Your task to perform on an android device: Add asus zenbook to the cart on target.com Image 0: 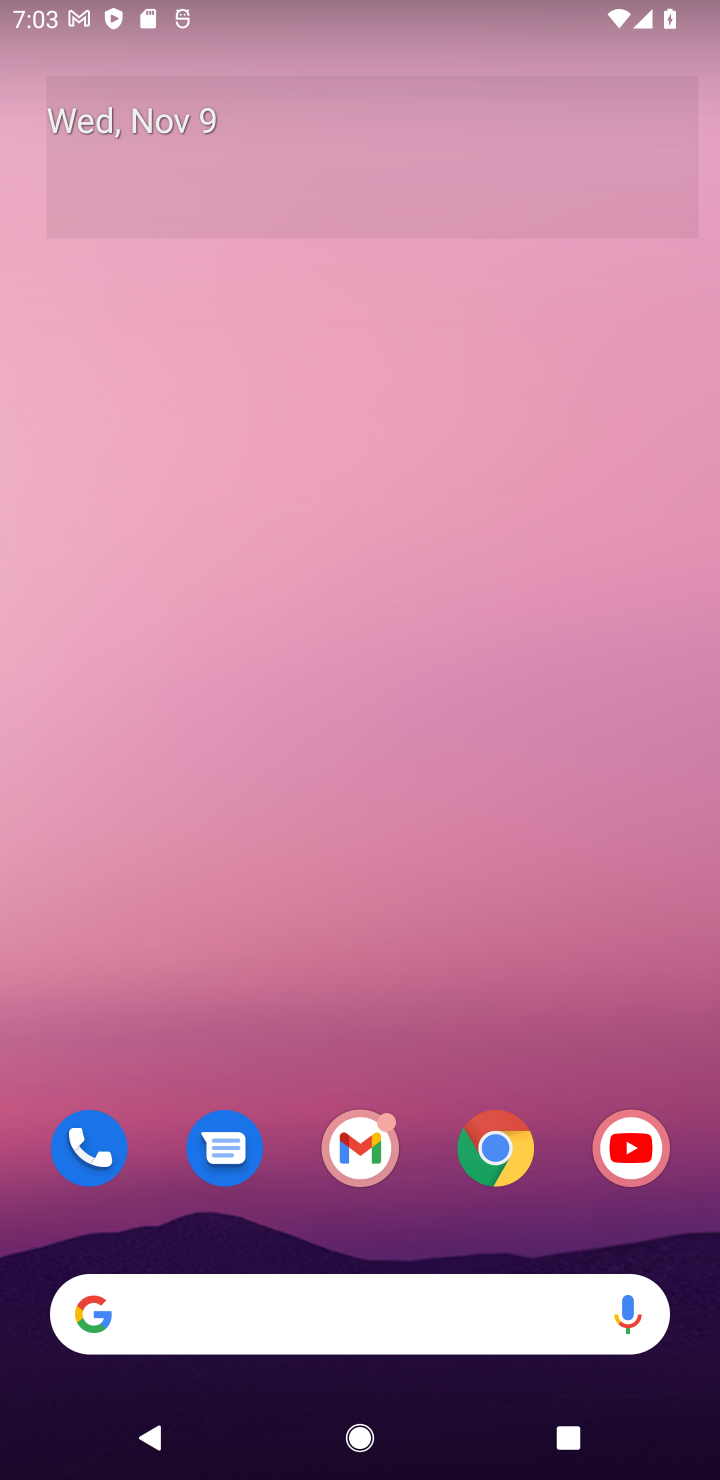
Step 0: click (513, 1156)
Your task to perform on an android device: Add asus zenbook to the cart on target.com Image 1: 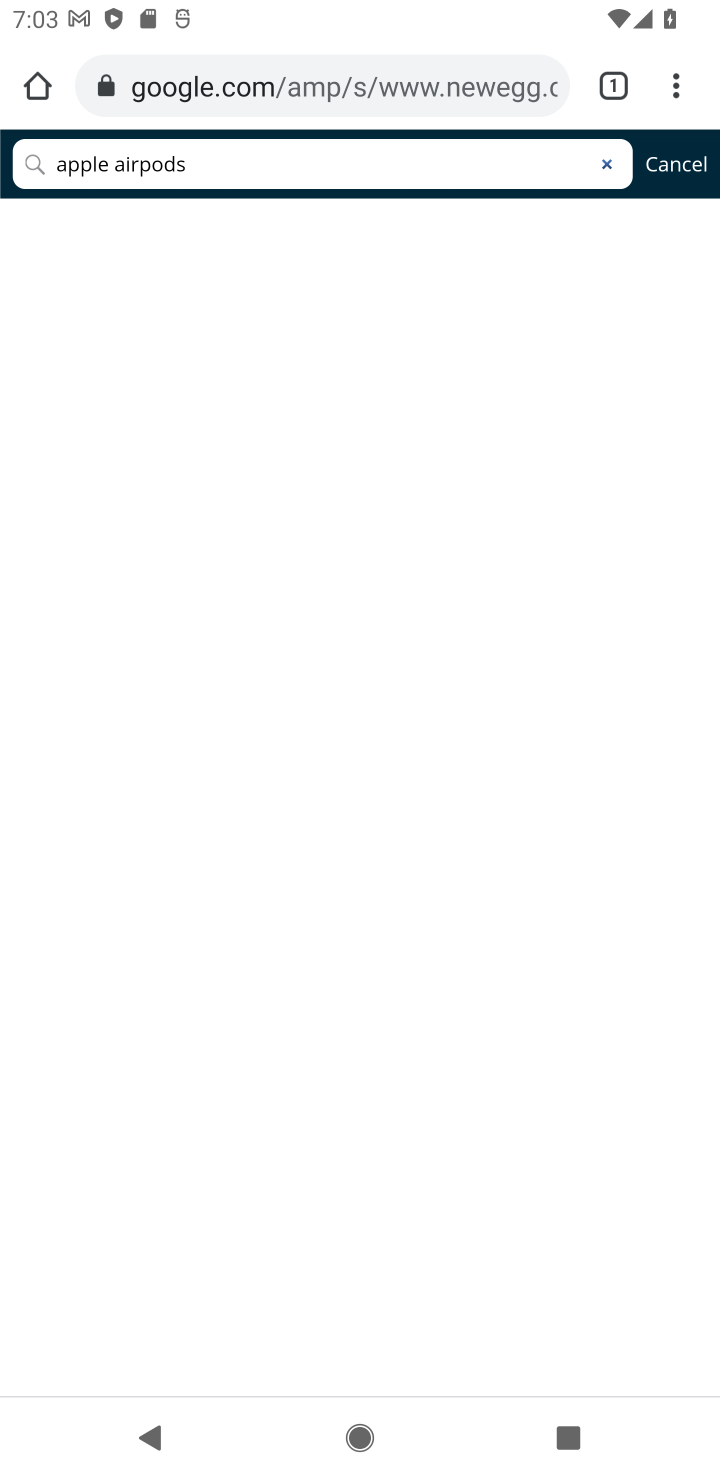
Step 1: click (211, 92)
Your task to perform on an android device: Add asus zenbook to the cart on target.com Image 2: 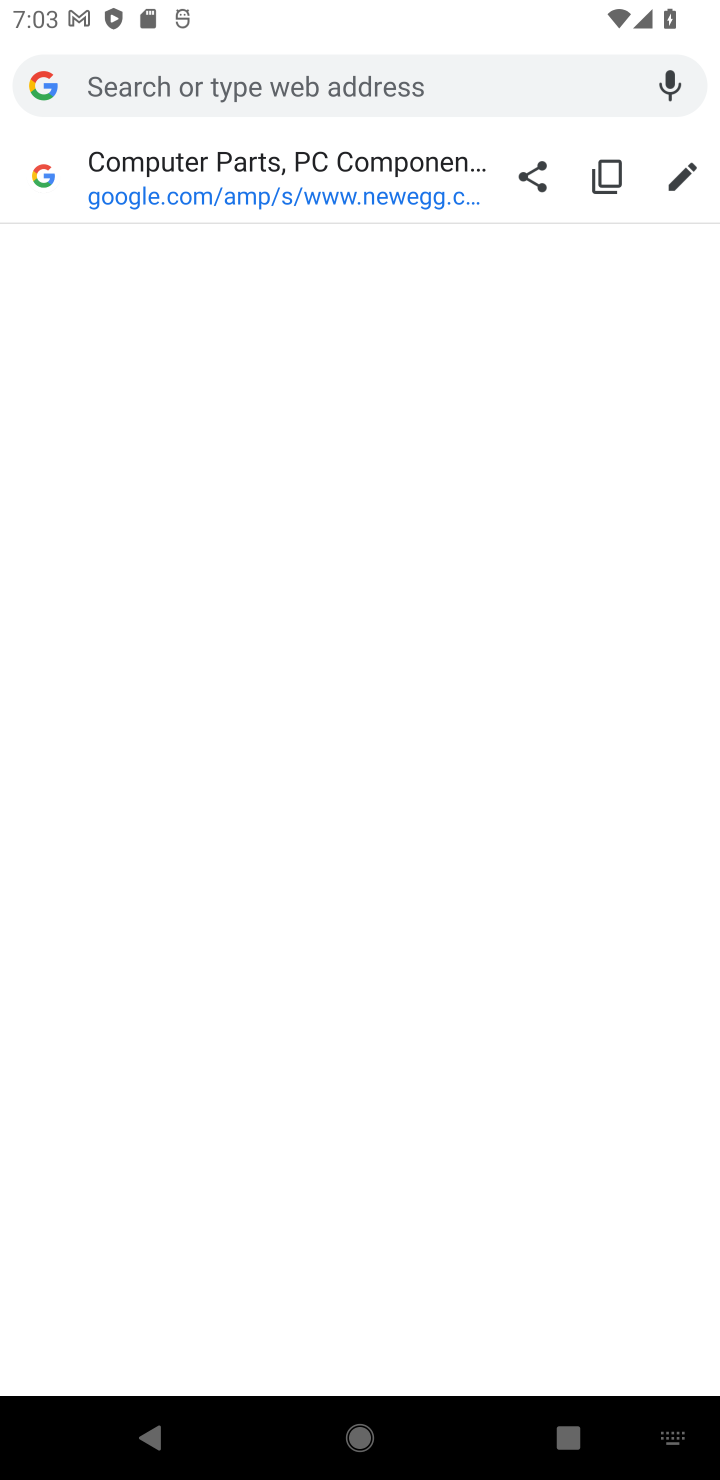
Step 2: type "target"
Your task to perform on an android device: Add asus zenbook to the cart on target.com Image 3: 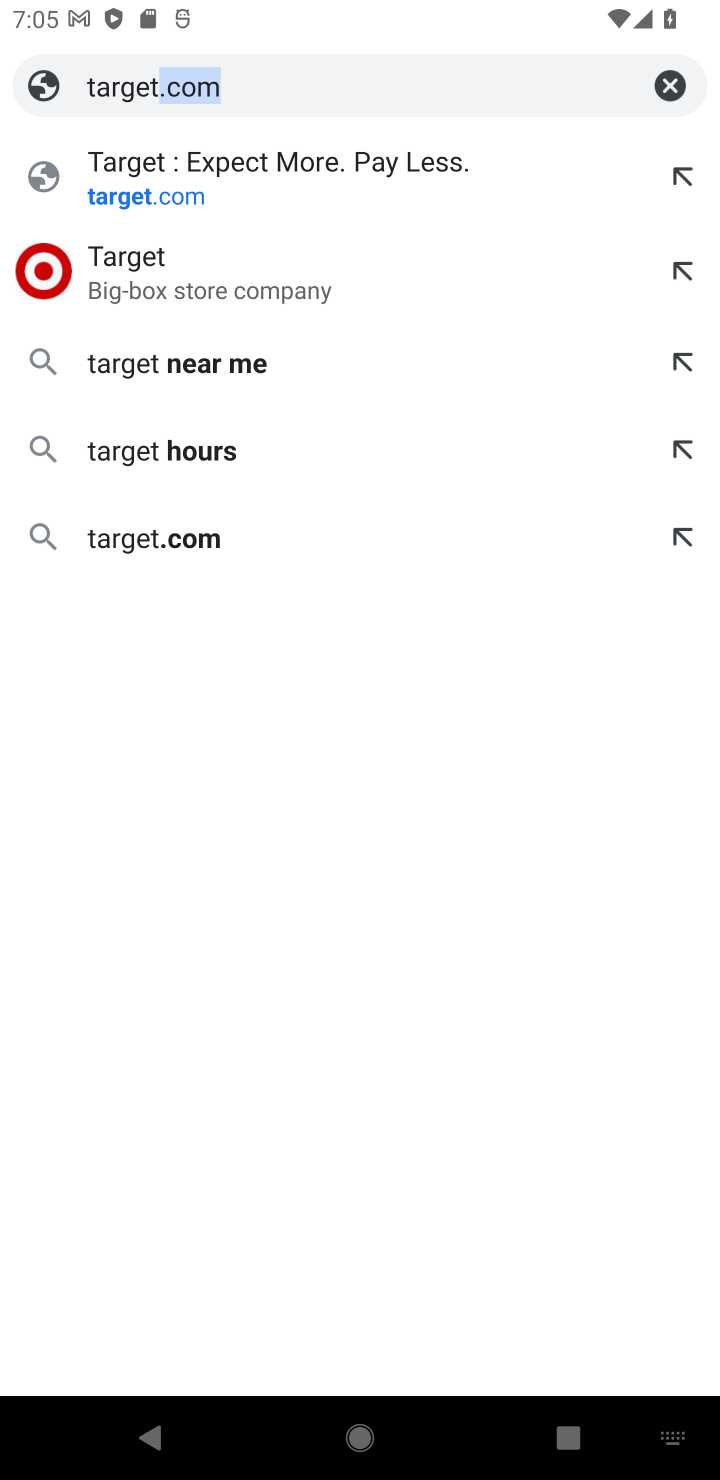
Step 3: click (96, 251)
Your task to perform on an android device: Add asus zenbook to the cart on target.com Image 4: 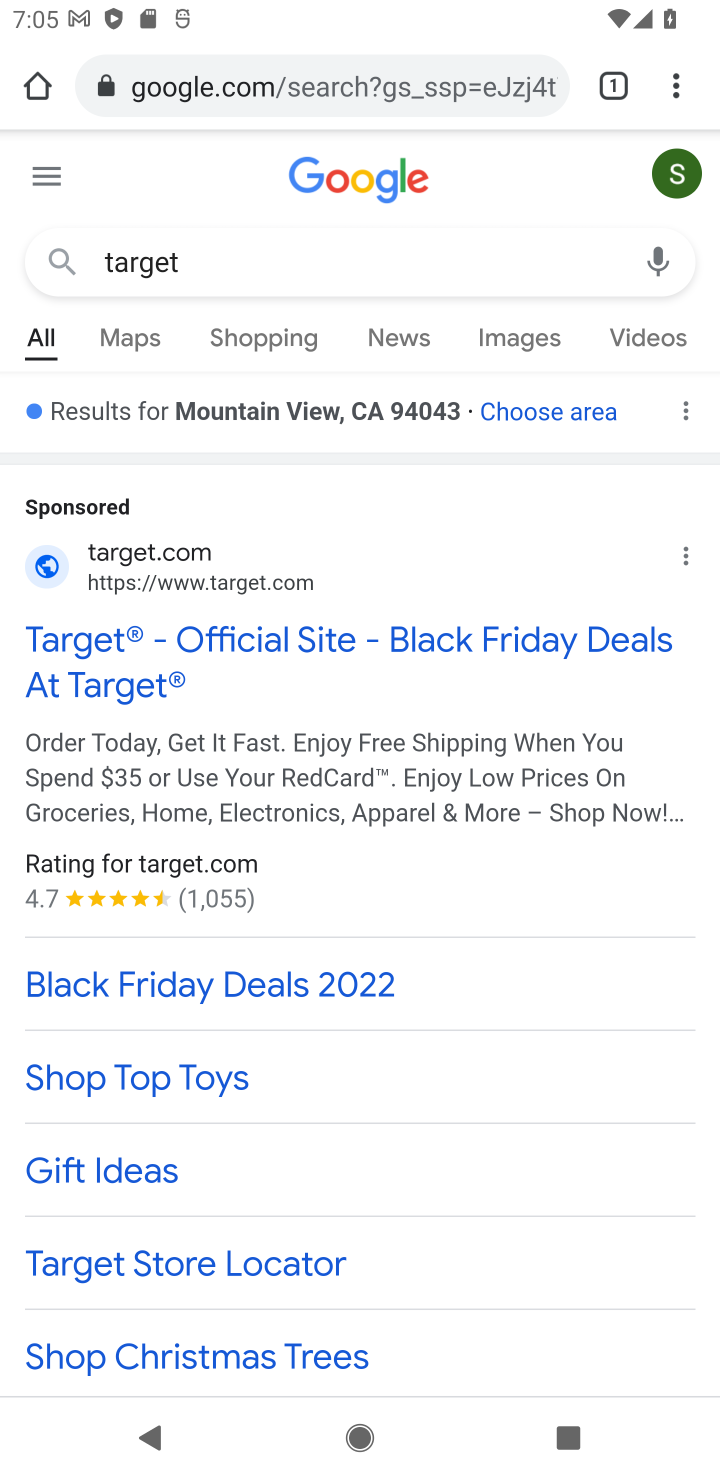
Step 4: drag from (317, 1163) to (302, 593)
Your task to perform on an android device: Add asus zenbook to the cart on target.com Image 5: 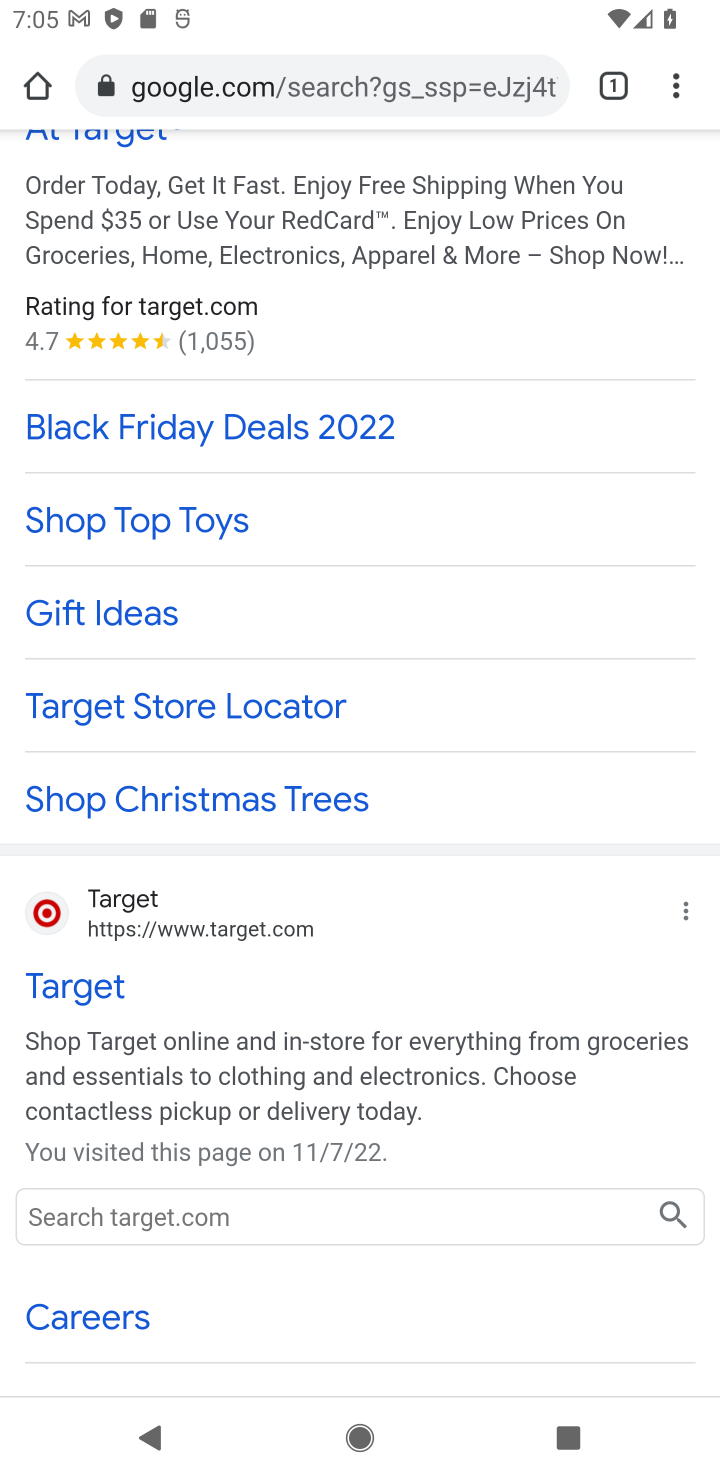
Step 5: click (93, 997)
Your task to perform on an android device: Add asus zenbook to the cart on target.com Image 6: 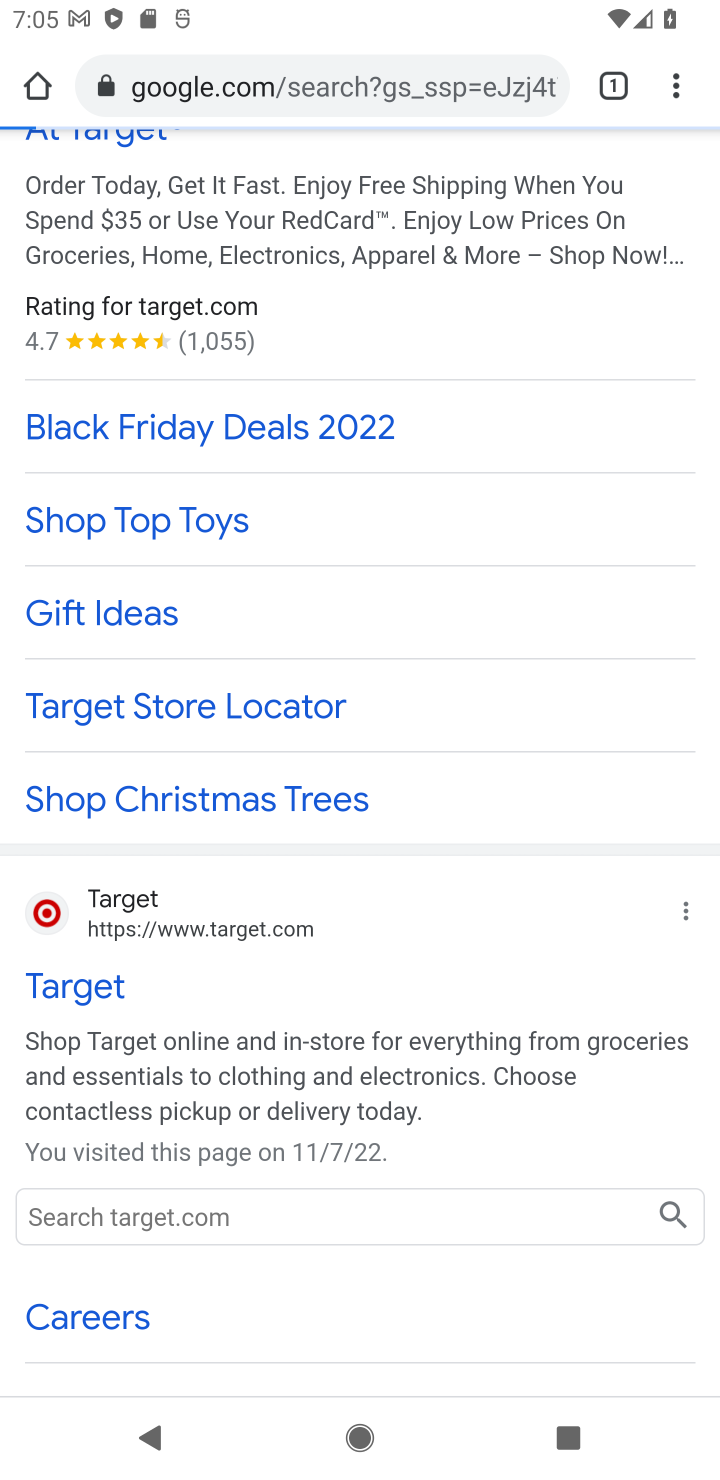
Step 6: click (83, 987)
Your task to perform on an android device: Add asus zenbook to the cart on target.com Image 7: 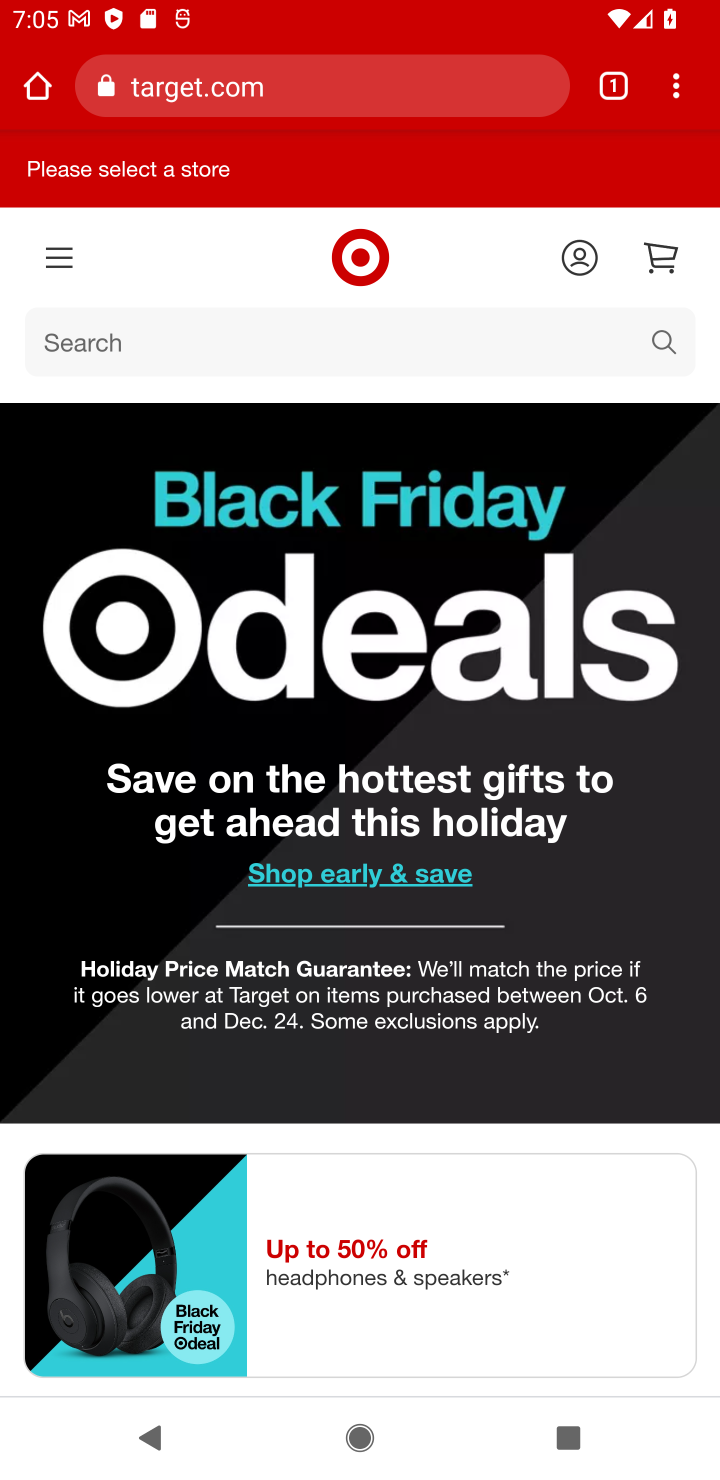
Step 7: click (478, 352)
Your task to perform on an android device: Add asus zenbook to the cart on target.com Image 8: 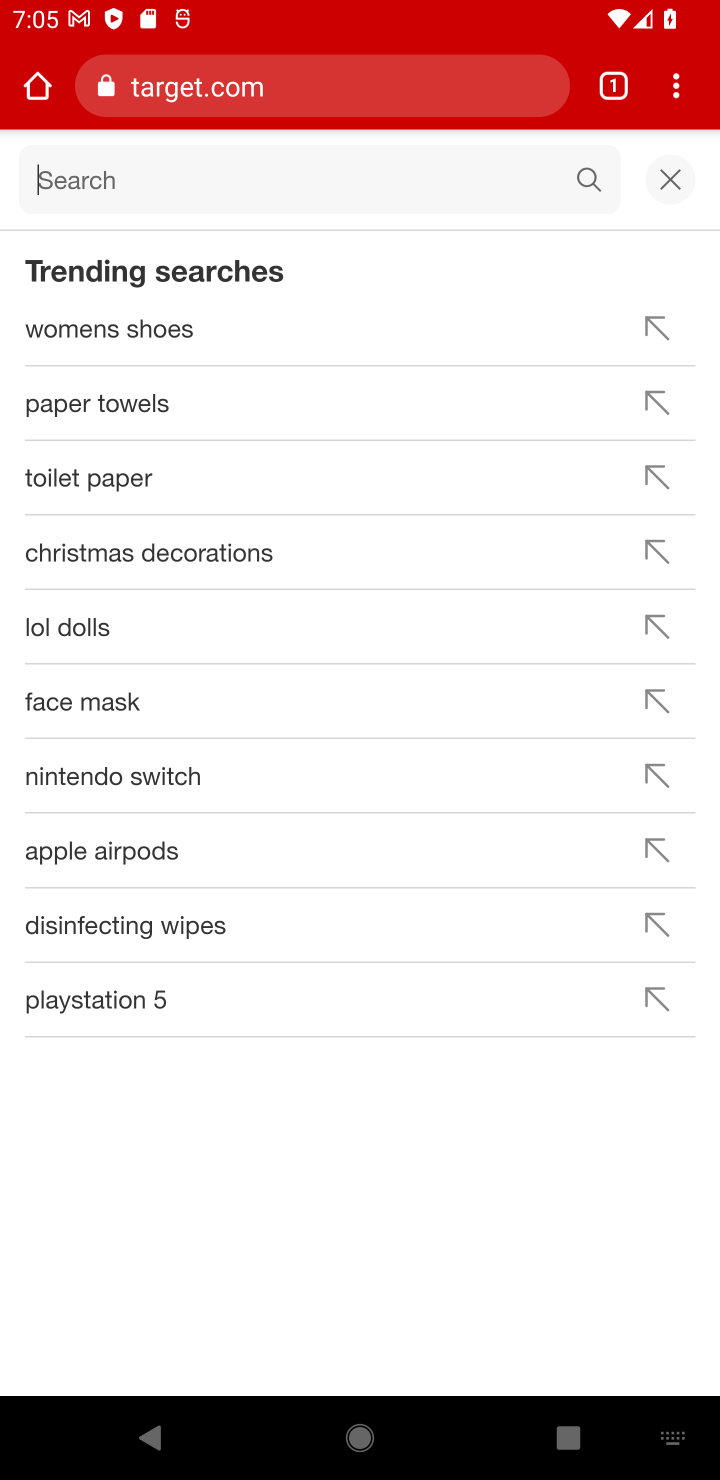
Step 8: type "asus zenbook"
Your task to perform on an android device: Add asus zenbook to the cart on target.com Image 9: 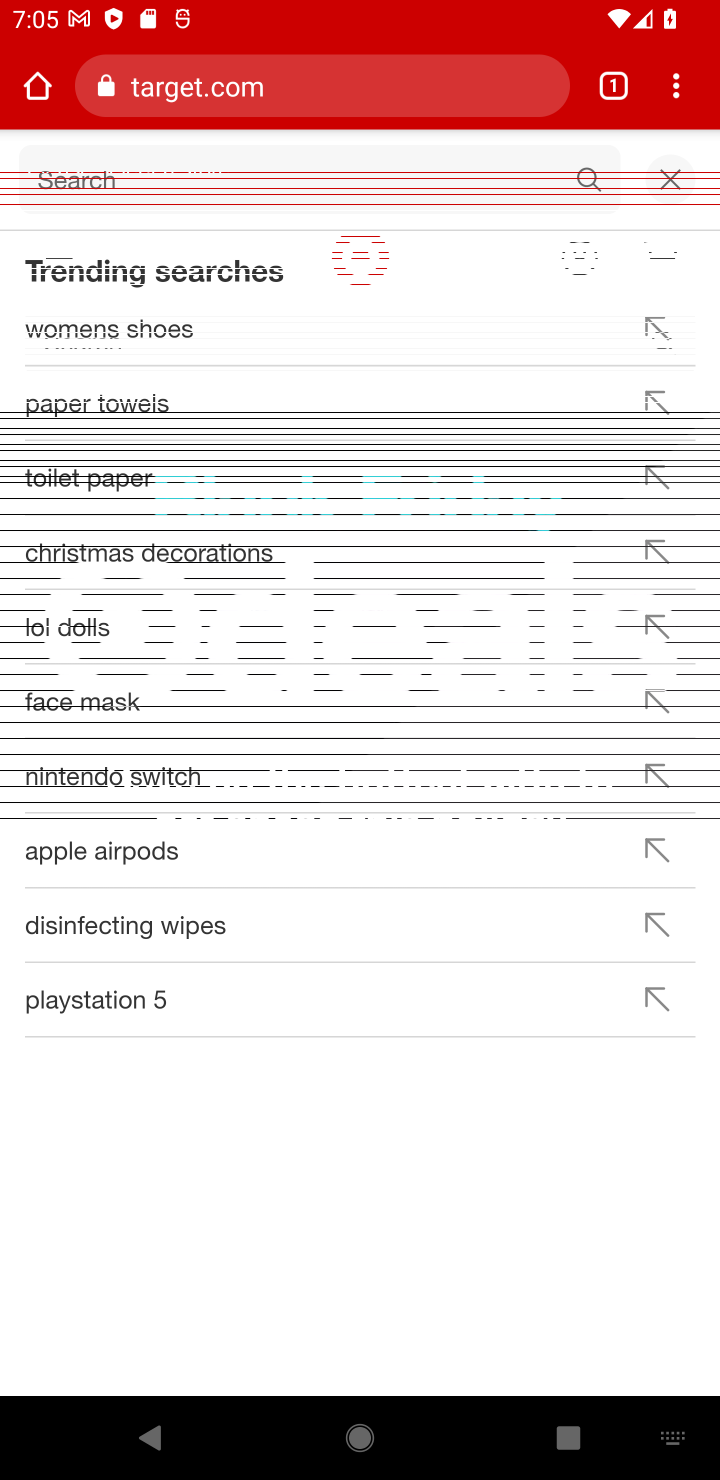
Step 9: type ""
Your task to perform on an android device: Add asus zenbook to the cart on target.com Image 10: 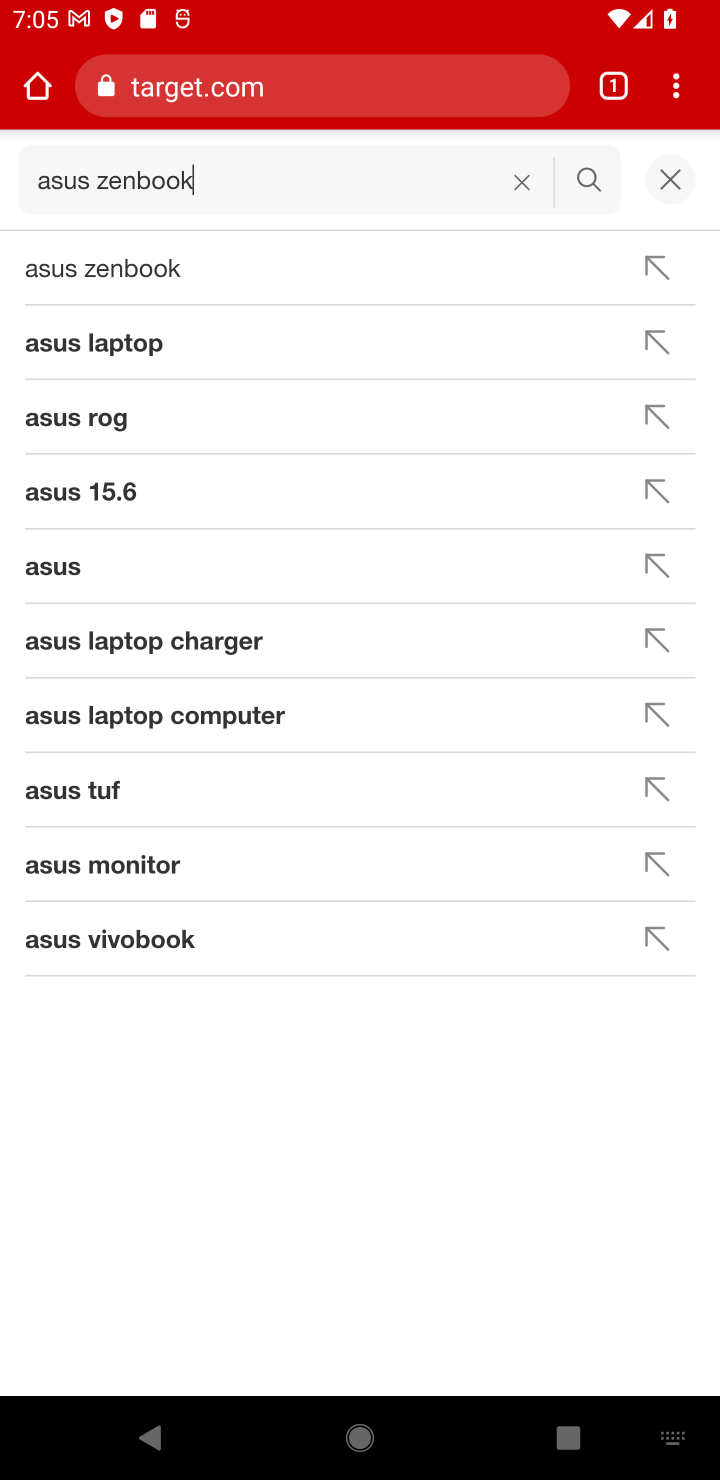
Step 10: click (108, 266)
Your task to perform on an android device: Add asus zenbook to the cart on target.com Image 11: 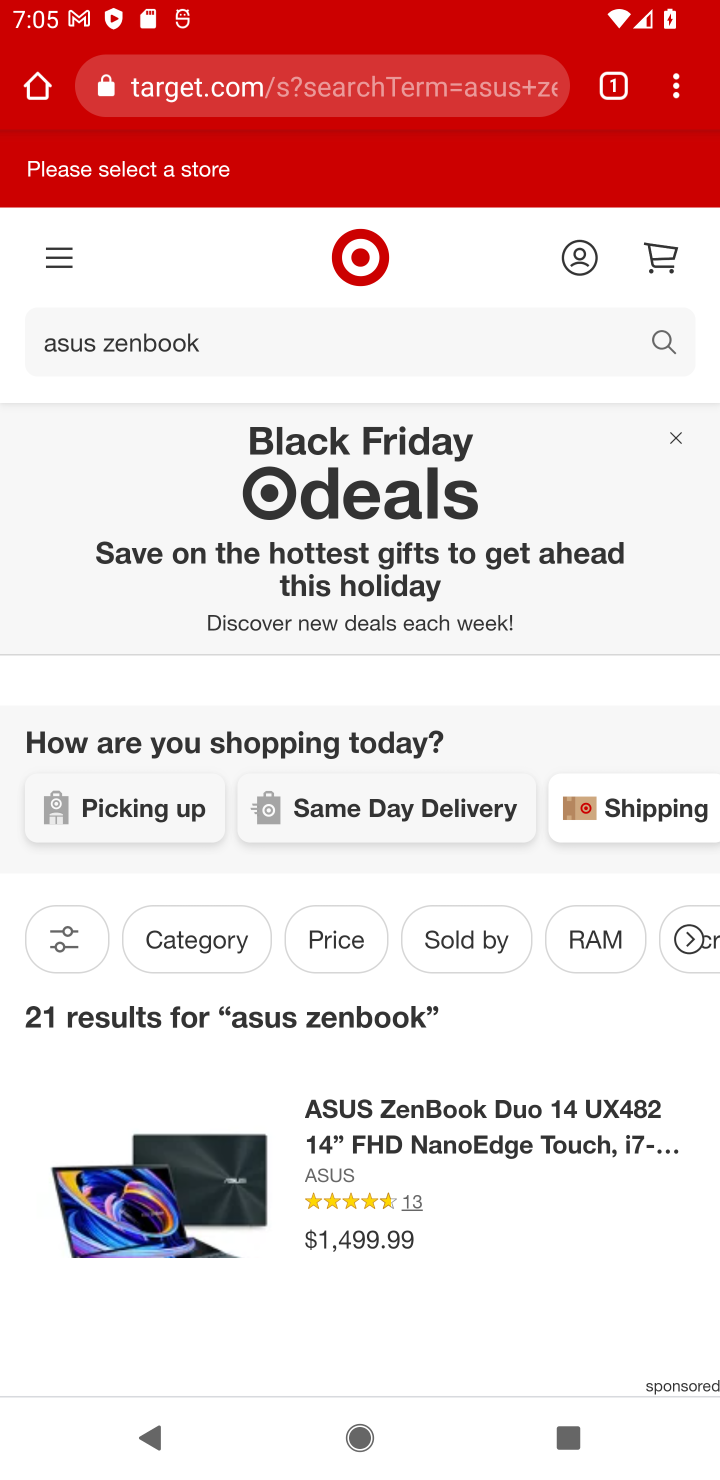
Step 11: drag from (310, 1187) to (387, 388)
Your task to perform on an android device: Add asus zenbook to the cart on target.com Image 12: 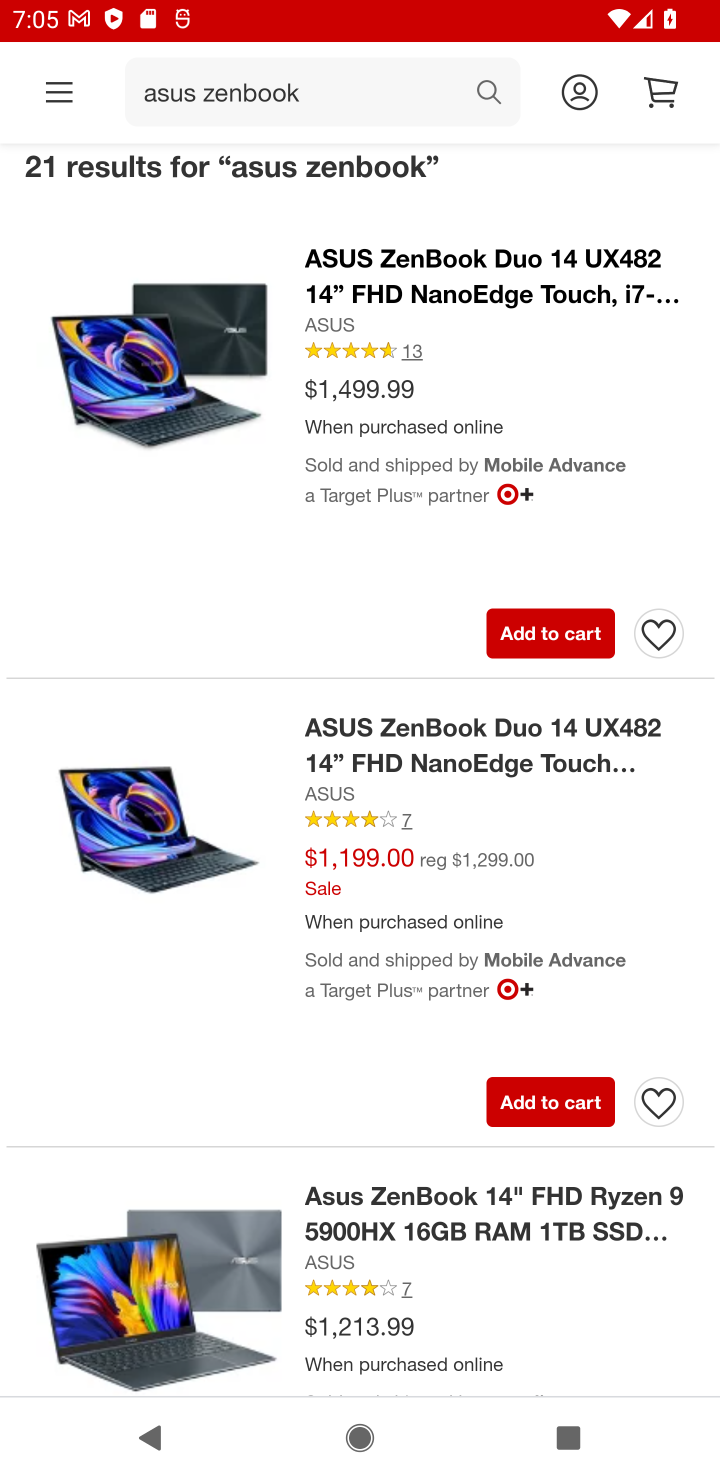
Step 12: click (392, 748)
Your task to perform on an android device: Add asus zenbook to the cart on target.com Image 13: 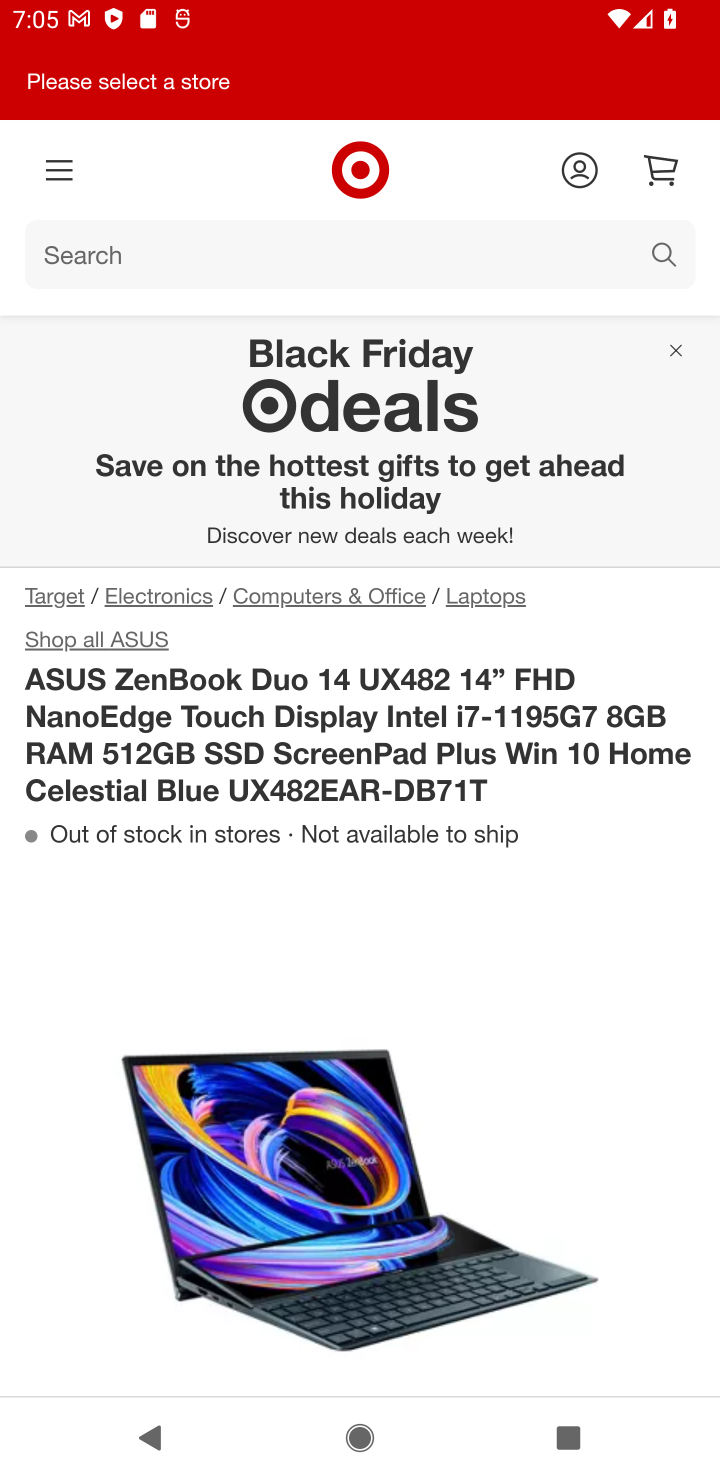
Step 13: drag from (449, 993) to (439, 245)
Your task to perform on an android device: Add asus zenbook to the cart on target.com Image 14: 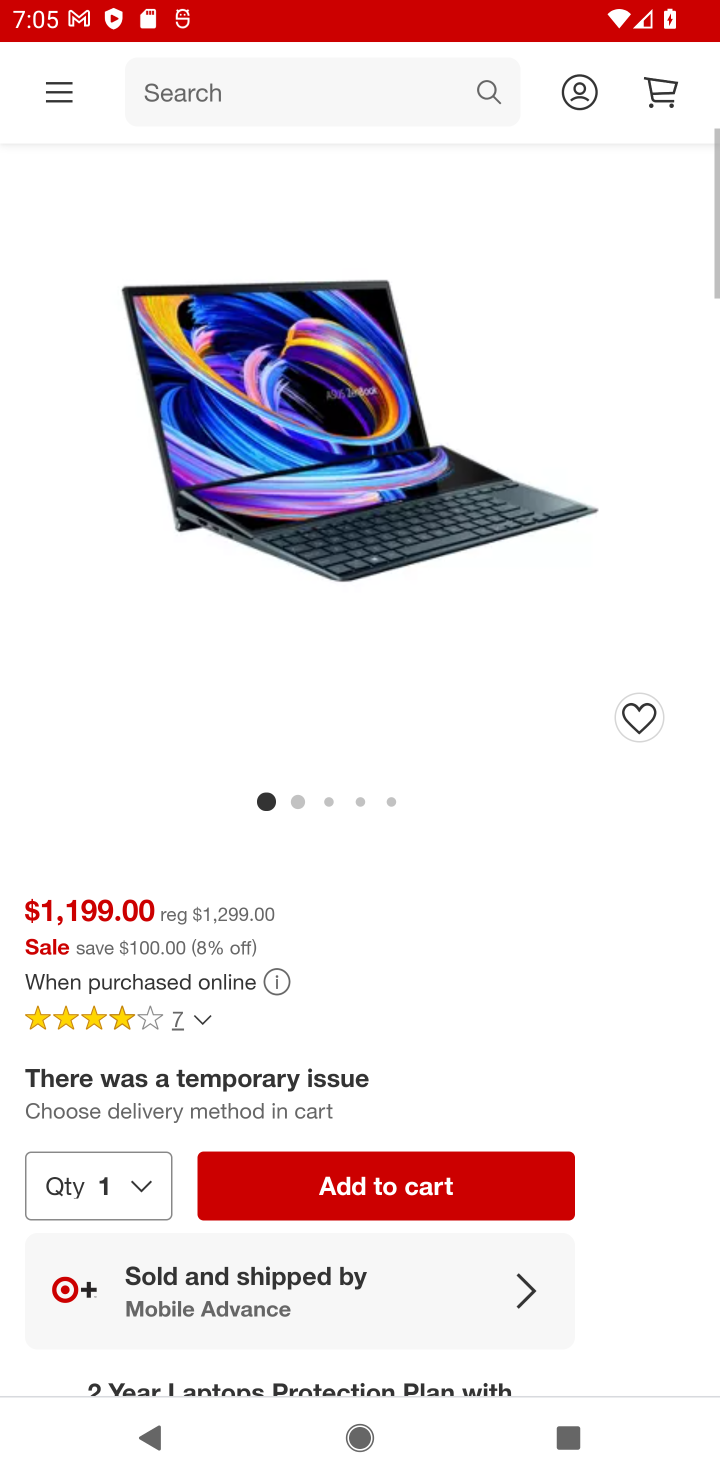
Step 14: drag from (339, 1004) to (341, 529)
Your task to perform on an android device: Add asus zenbook to the cart on target.com Image 15: 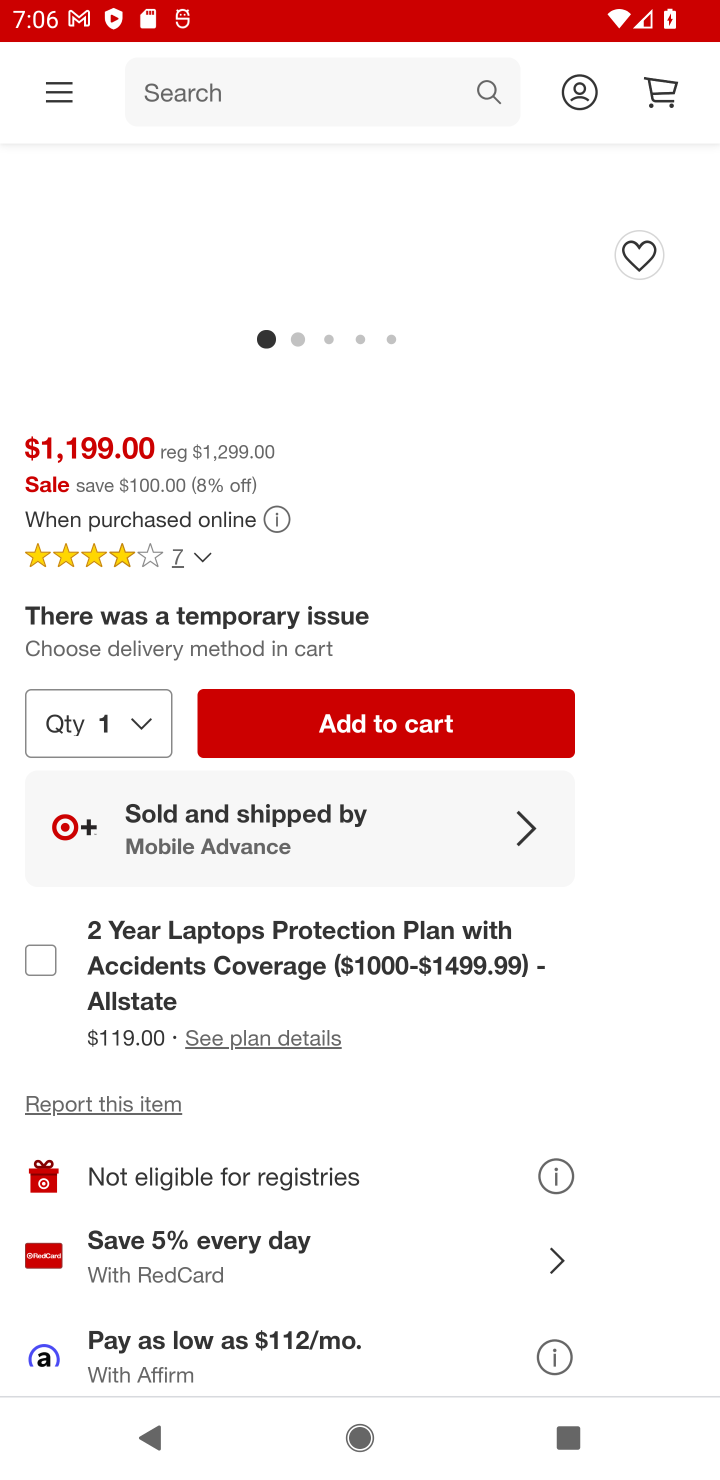
Step 15: click (322, 725)
Your task to perform on an android device: Add asus zenbook to the cart on target.com Image 16: 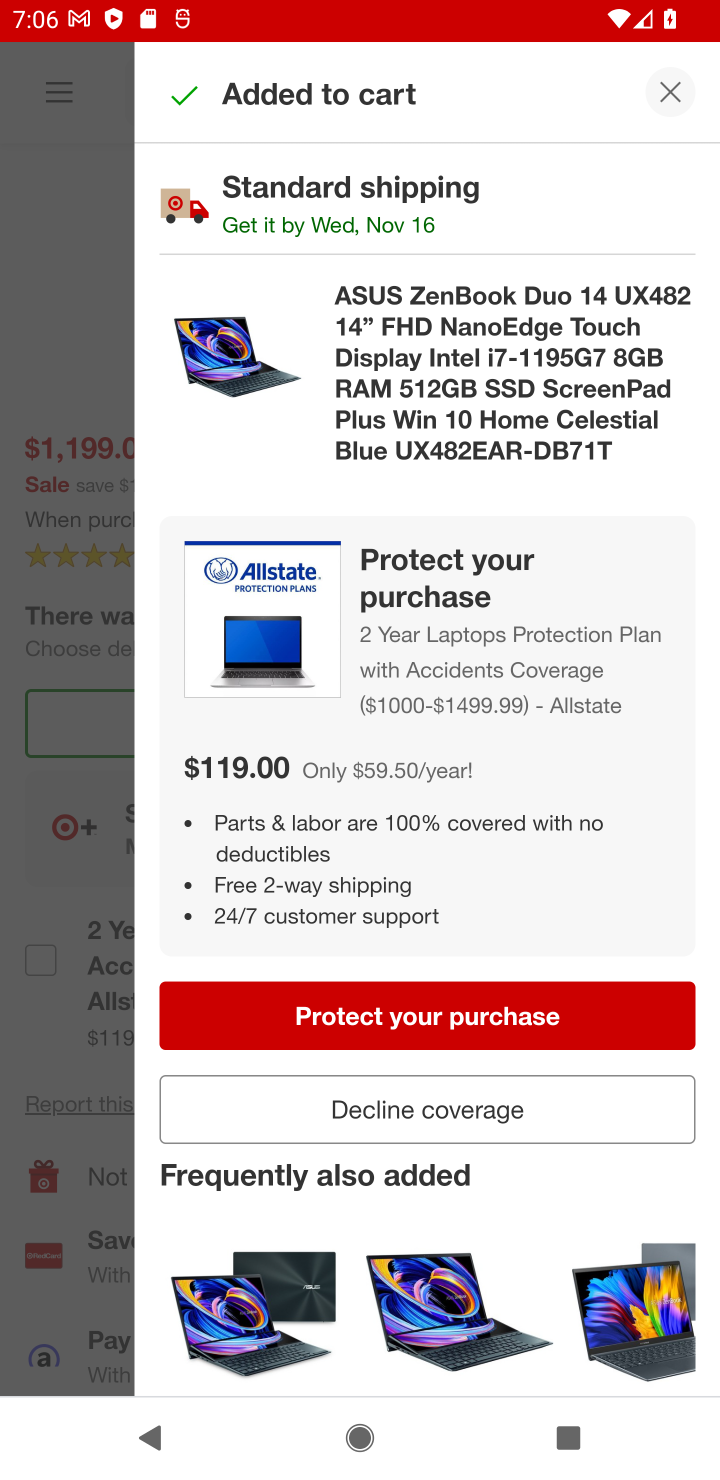
Step 16: click (429, 1017)
Your task to perform on an android device: Add asus zenbook to the cart on target.com Image 17: 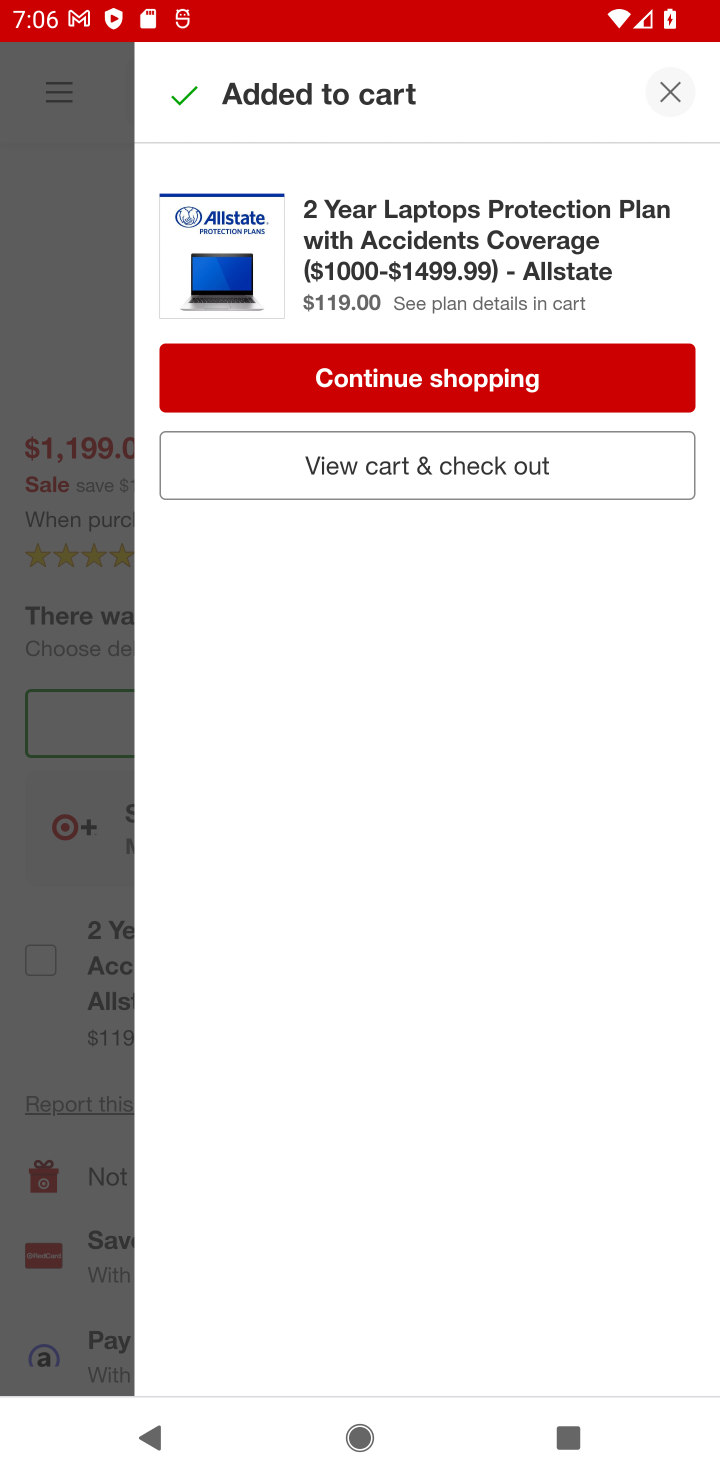
Step 17: click (322, 477)
Your task to perform on an android device: Add asus zenbook to the cart on target.com Image 18: 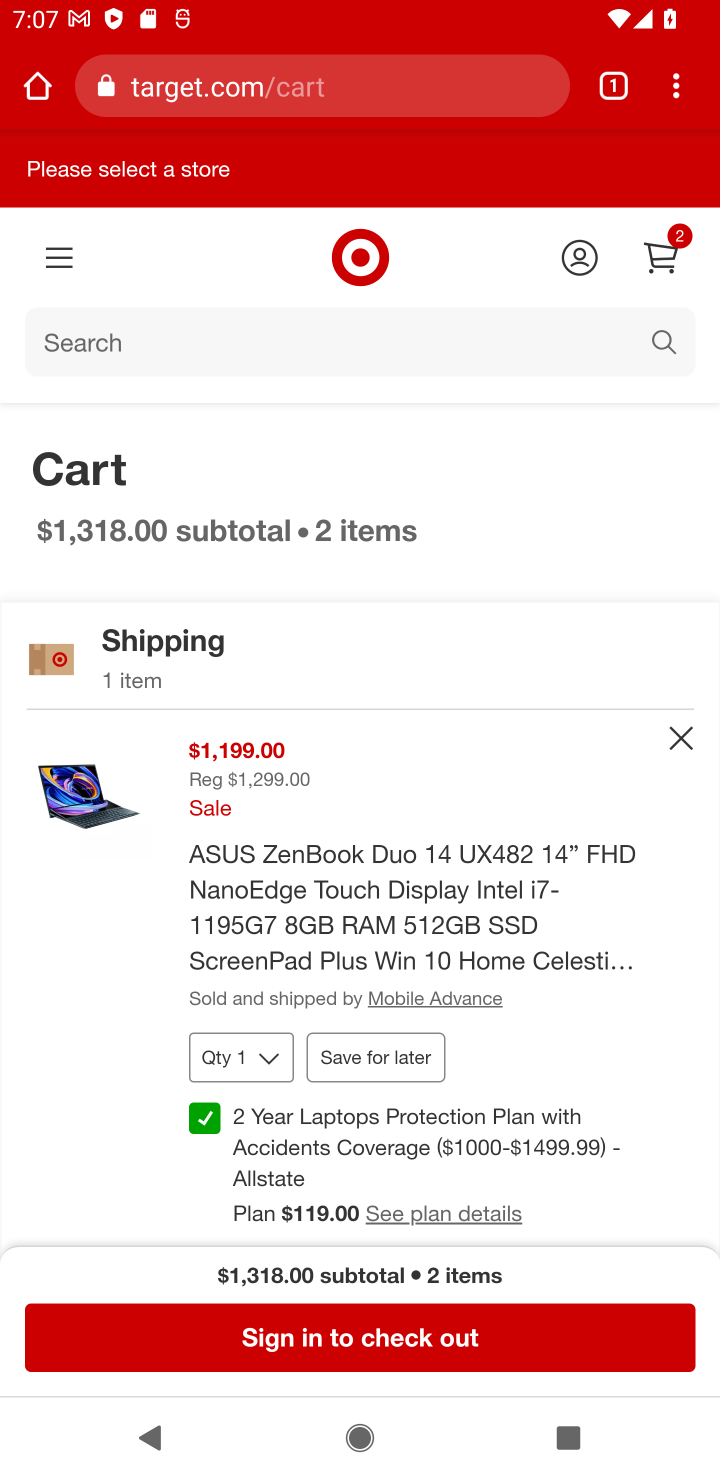
Step 18: task complete